Your task to perform on an android device: toggle priority inbox in the gmail app Image 0: 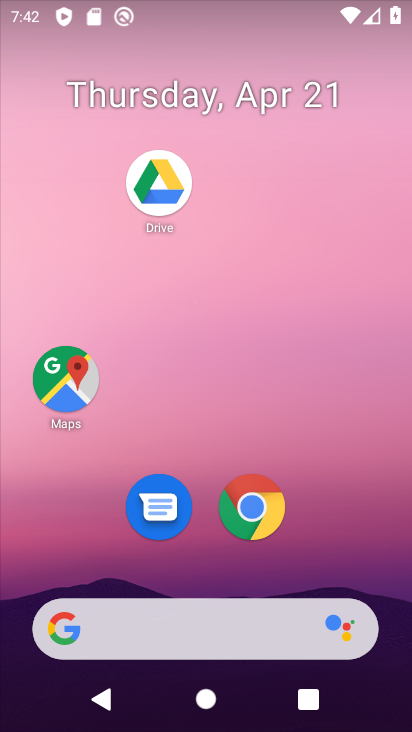
Step 0: drag from (370, 565) to (371, 179)
Your task to perform on an android device: toggle priority inbox in the gmail app Image 1: 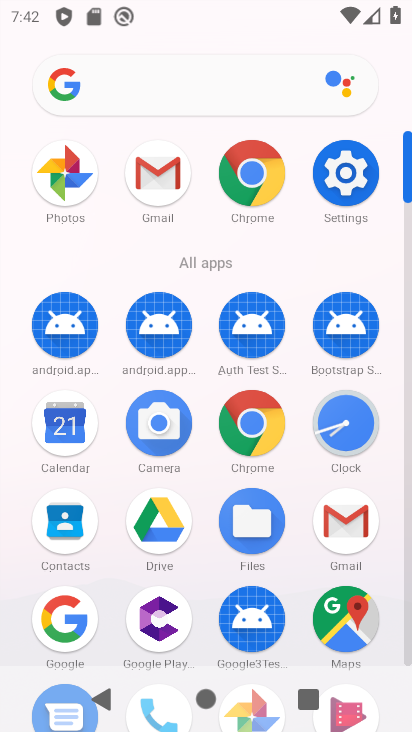
Step 1: click (348, 535)
Your task to perform on an android device: toggle priority inbox in the gmail app Image 2: 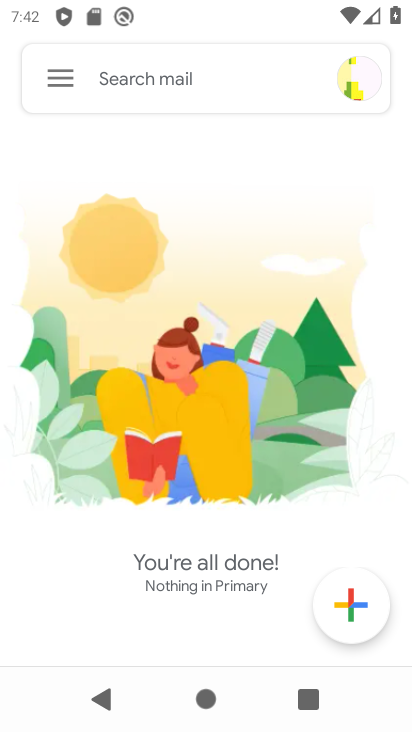
Step 2: click (72, 79)
Your task to perform on an android device: toggle priority inbox in the gmail app Image 3: 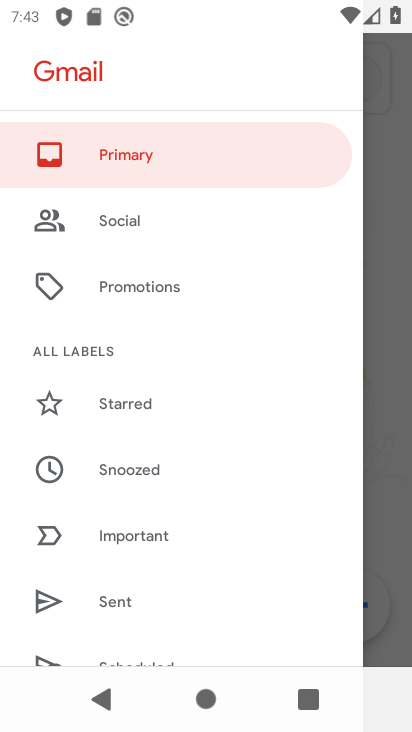
Step 3: drag from (280, 544) to (302, 343)
Your task to perform on an android device: toggle priority inbox in the gmail app Image 4: 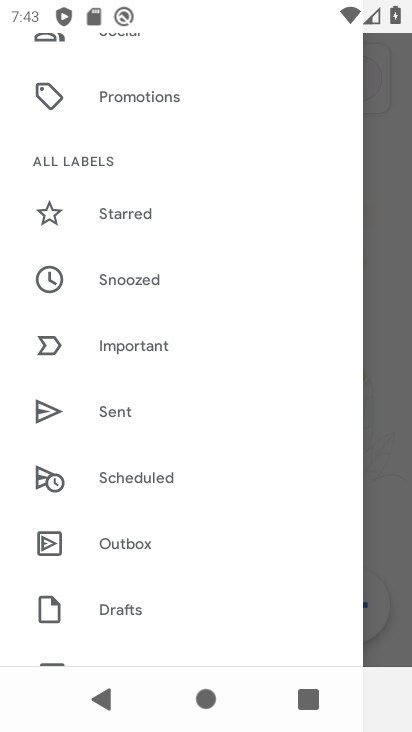
Step 4: drag from (300, 538) to (296, 346)
Your task to perform on an android device: toggle priority inbox in the gmail app Image 5: 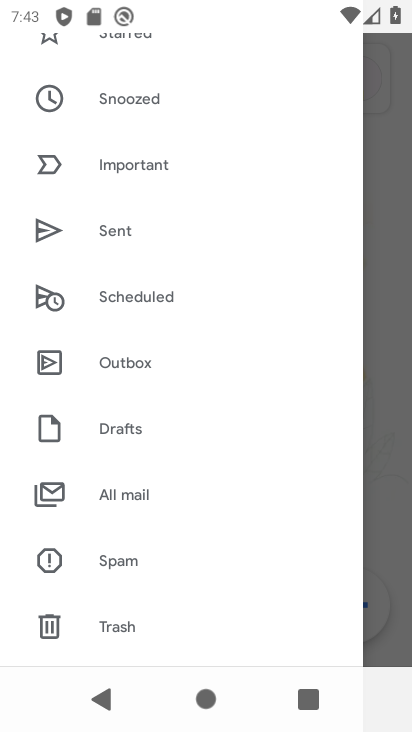
Step 5: drag from (293, 554) to (304, 344)
Your task to perform on an android device: toggle priority inbox in the gmail app Image 6: 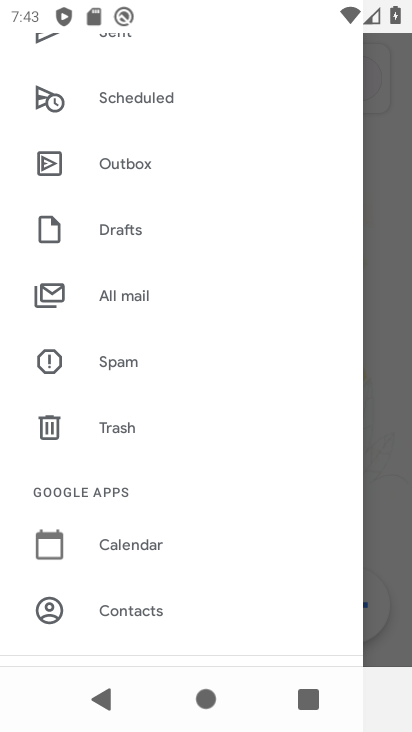
Step 6: drag from (296, 549) to (292, 348)
Your task to perform on an android device: toggle priority inbox in the gmail app Image 7: 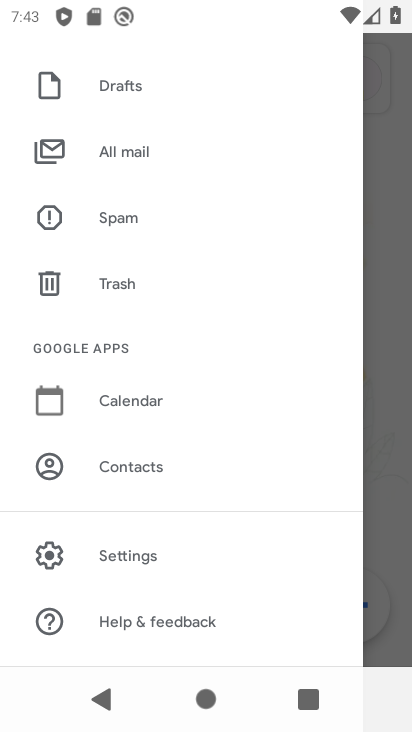
Step 7: click (204, 560)
Your task to perform on an android device: toggle priority inbox in the gmail app Image 8: 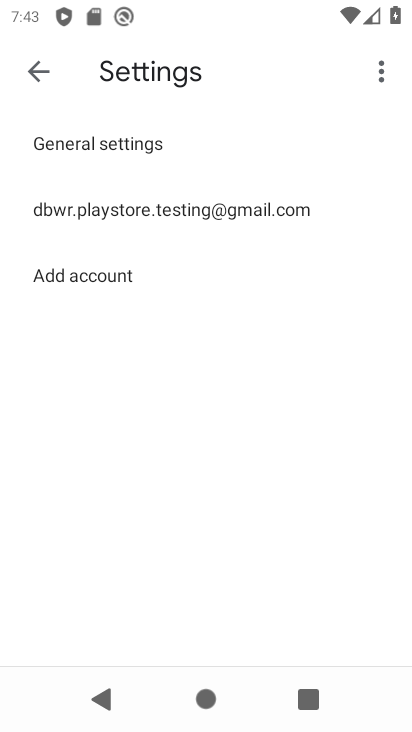
Step 8: click (222, 202)
Your task to perform on an android device: toggle priority inbox in the gmail app Image 9: 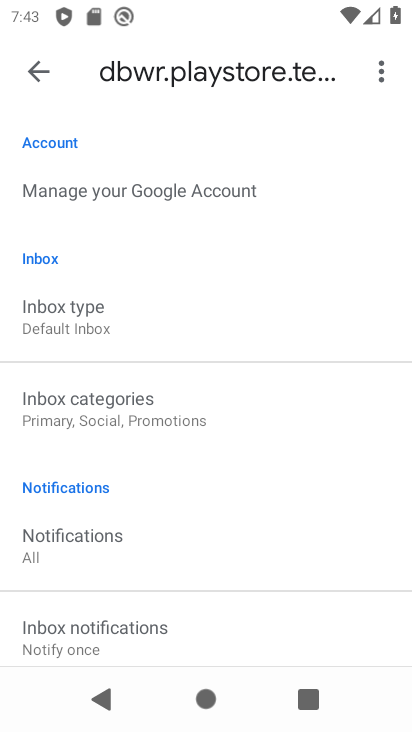
Step 9: drag from (319, 524) to (352, 323)
Your task to perform on an android device: toggle priority inbox in the gmail app Image 10: 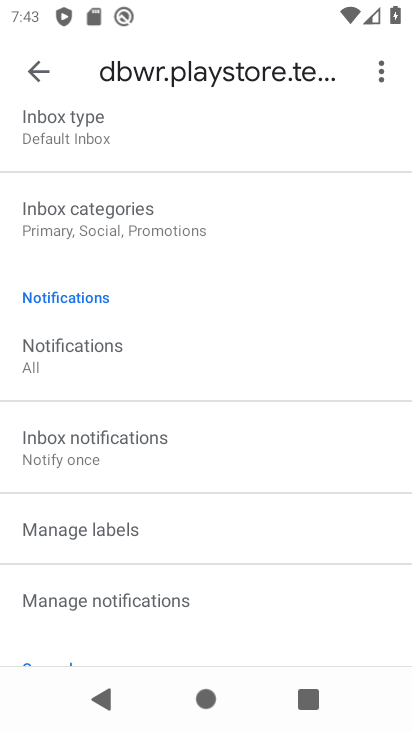
Step 10: drag from (352, 590) to (358, 416)
Your task to perform on an android device: toggle priority inbox in the gmail app Image 11: 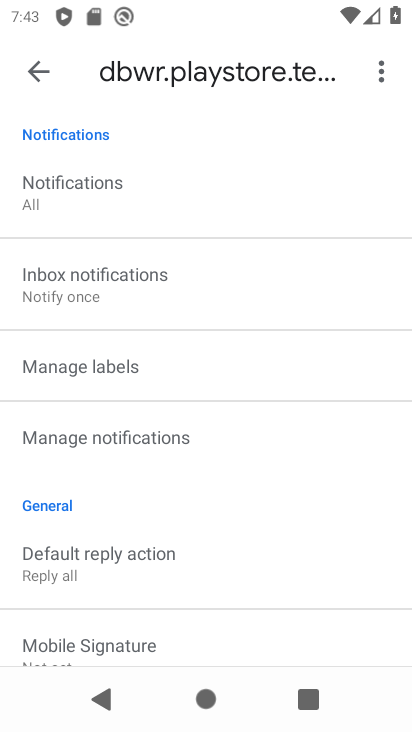
Step 11: drag from (355, 621) to (358, 531)
Your task to perform on an android device: toggle priority inbox in the gmail app Image 12: 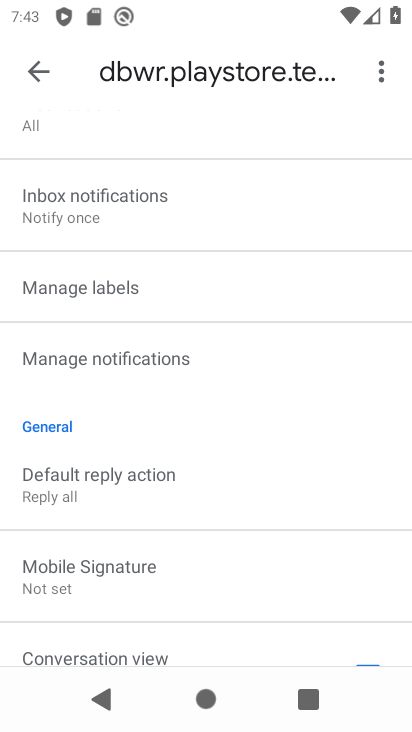
Step 12: drag from (347, 532) to (345, 257)
Your task to perform on an android device: toggle priority inbox in the gmail app Image 13: 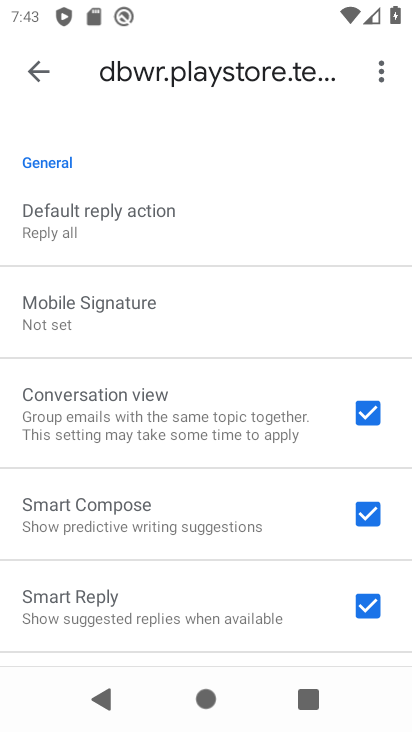
Step 13: drag from (320, 263) to (323, 431)
Your task to perform on an android device: toggle priority inbox in the gmail app Image 14: 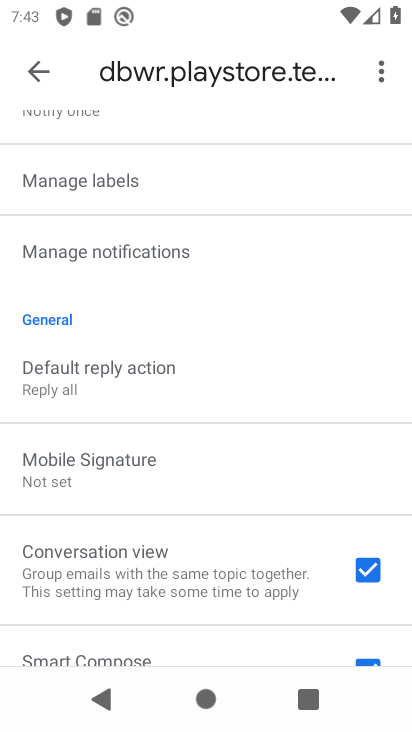
Step 14: drag from (321, 241) to (321, 448)
Your task to perform on an android device: toggle priority inbox in the gmail app Image 15: 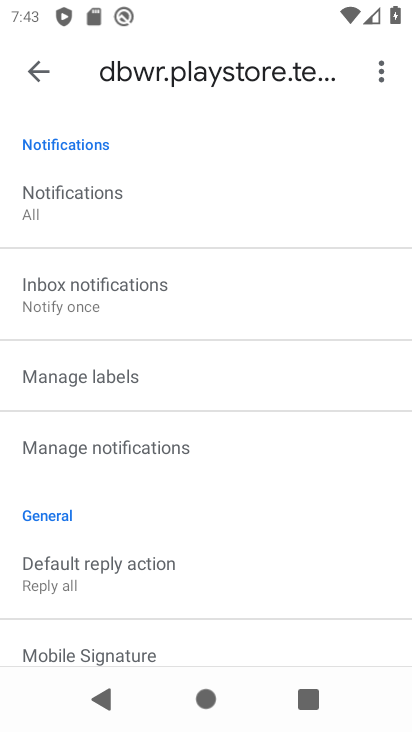
Step 15: drag from (297, 206) to (297, 381)
Your task to perform on an android device: toggle priority inbox in the gmail app Image 16: 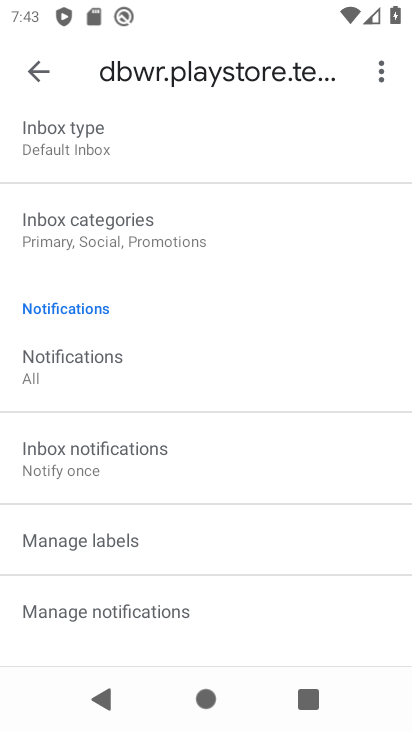
Step 16: drag from (291, 158) to (299, 374)
Your task to perform on an android device: toggle priority inbox in the gmail app Image 17: 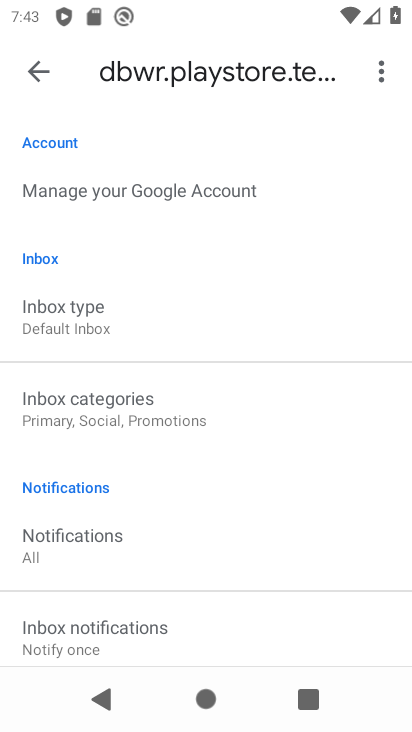
Step 17: click (93, 319)
Your task to perform on an android device: toggle priority inbox in the gmail app Image 18: 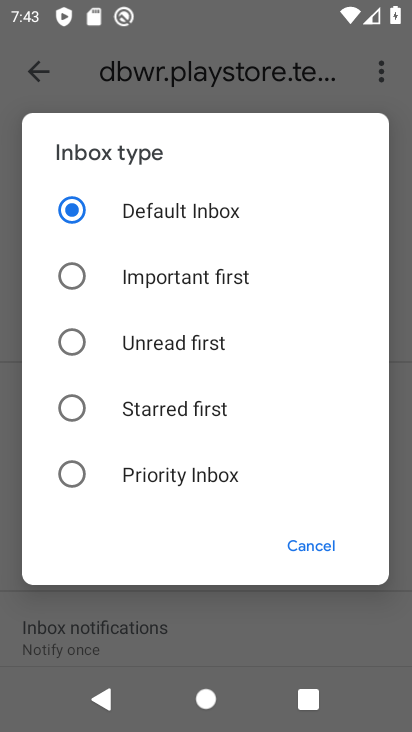
Step 18: click (209, 478)
Your task to perform on an android device: toggle priority inbox in the gmail app Image 19: 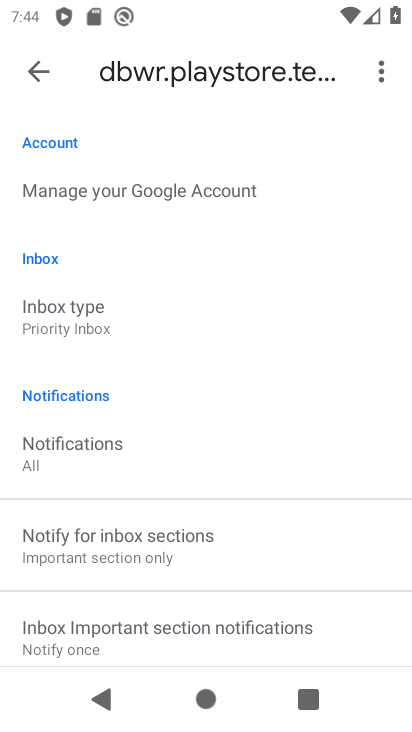
Step 19: task complete